Your task to perform on an android device: Search for seafood restaurants on Google Maps Image 0: 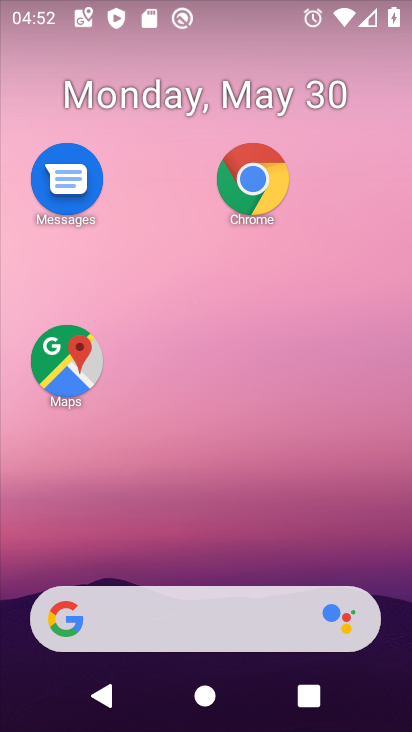
Step 0: click (89, 357)
Your task to perform on an android device: Search for seafood restaurants on Google Maps Image 1: 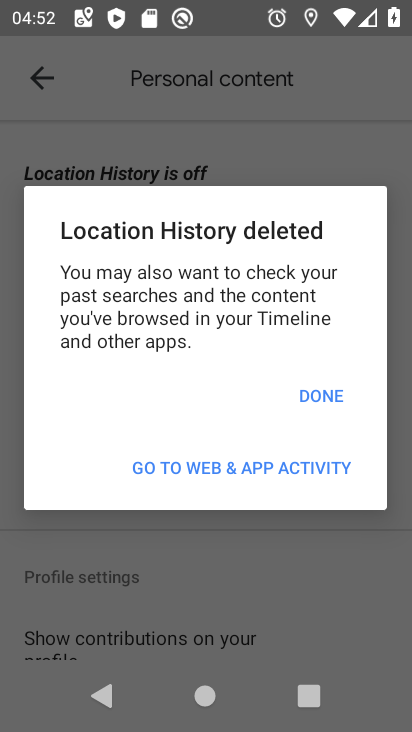
Step 1: click (315, 399)
Your task to perform on an android device: Search for seafood restaurants on Google Maps Image 2: 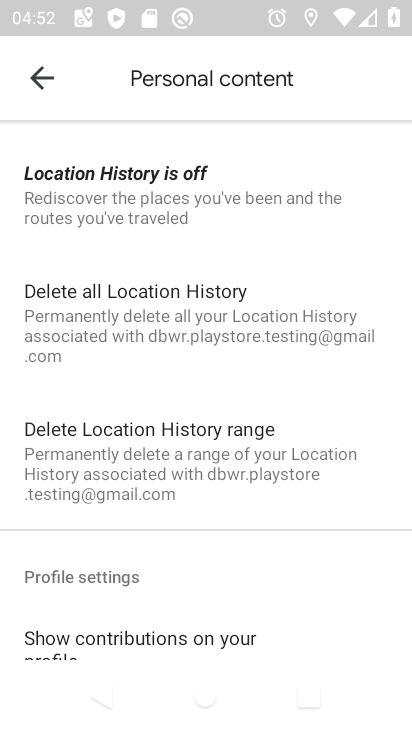
Step 2: click (35, 74)
Your task to perform on an android device: Search for seafood restaurants on Google Maps Image 3: 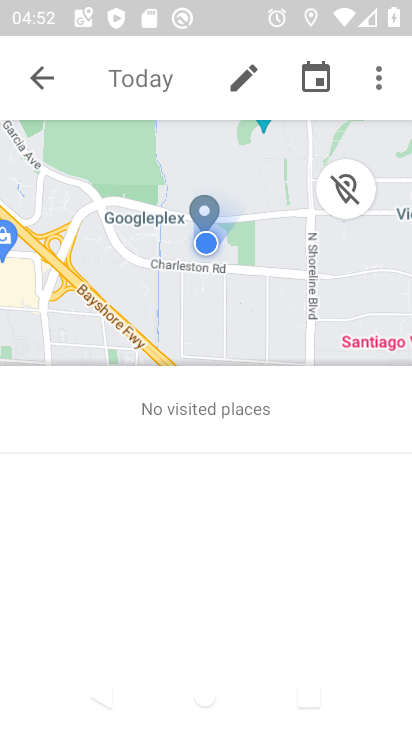
Step 3: click (42, 71)
Your task to perform on an android device: Search for seafood restaurants on Google Maps Image 4: 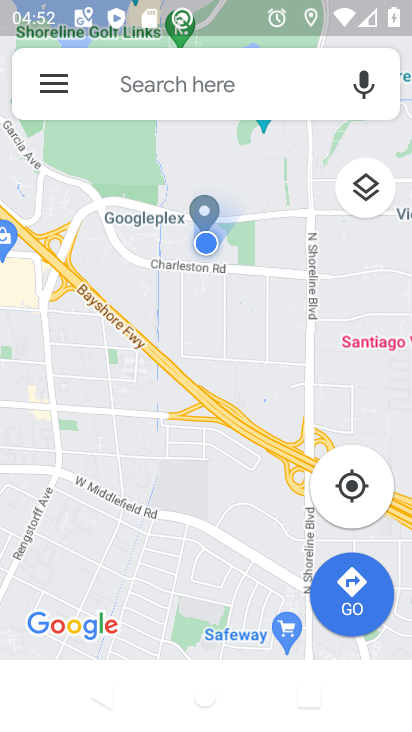
Step 4: click (60, 88)
Your task to perform on an android device: Search for seafood restaurants on Google Maps Image 5: 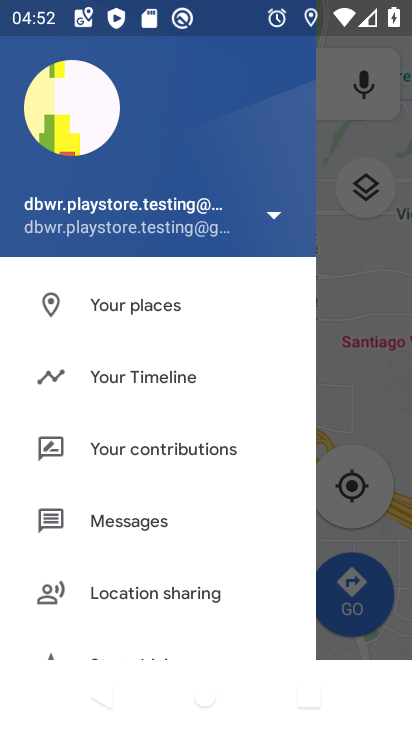
Step 5: press back button
Your task to perform on an android device: Search for seafood restaurants on Google Maps Image 6: 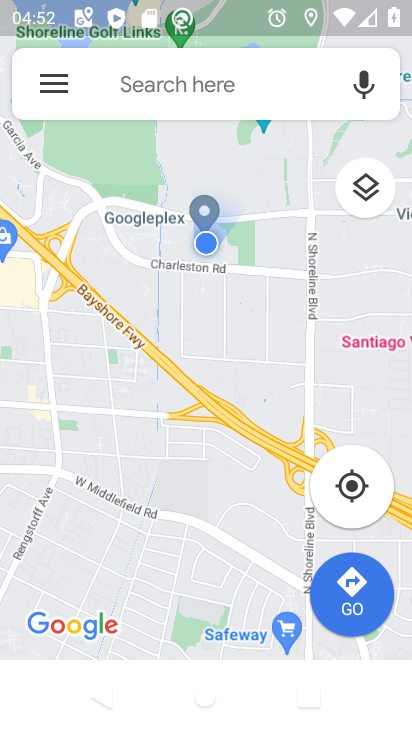
Step 6: click (175, 101)
Your task to perform on an android device: Search for seafood restaurants on Google Maps Image 7: 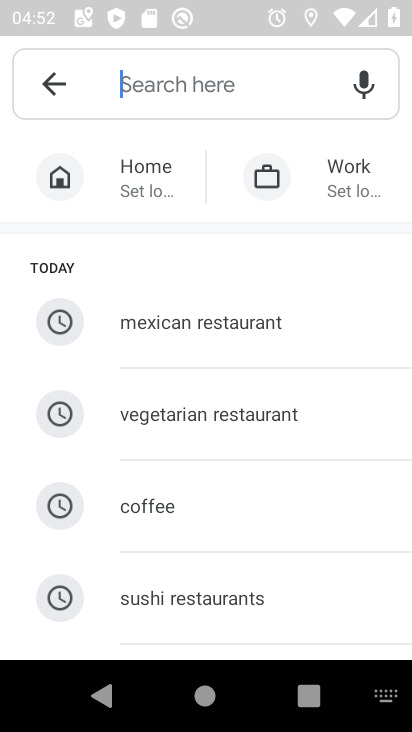
Step 7: drag from (179, 512) to (163, 247)
Your task to perform on an android device: Search for seafood restaurants on Google Maps Image 8: 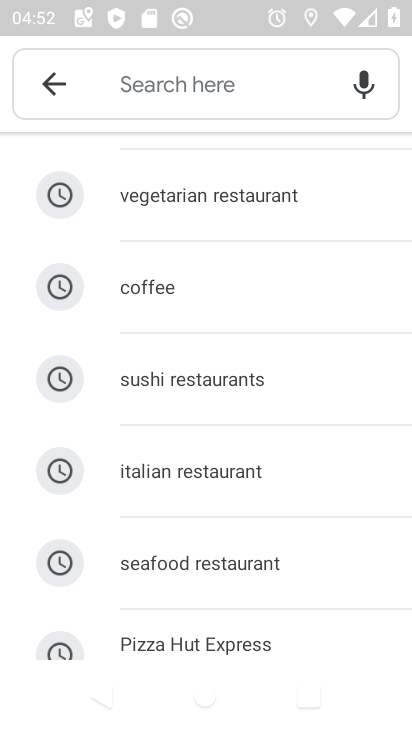
Step 8: click (174, 568)
Your task to perform on an android device: Search for seafood restaurants on Google Maps Image 9: 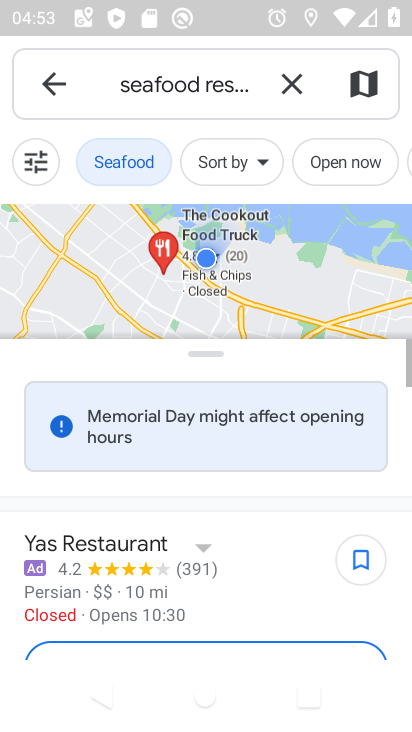
Step 9: task complete